Your task to perform on an android device: check the backup settings in the google photos Image 0: 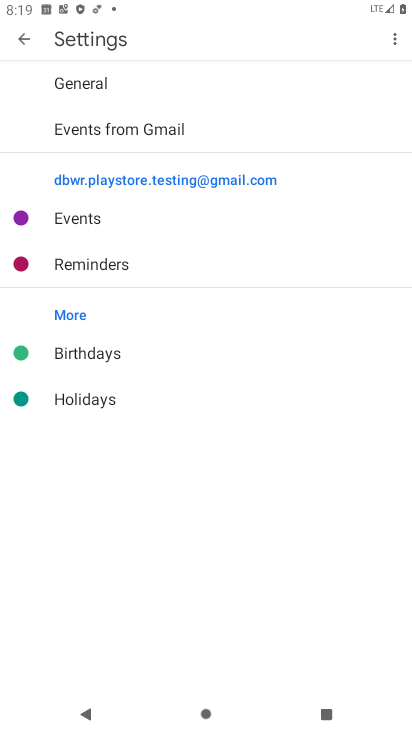
Step 0: press home button
Your task to perform on an android device: check the backup settings in the google photos Image 1: 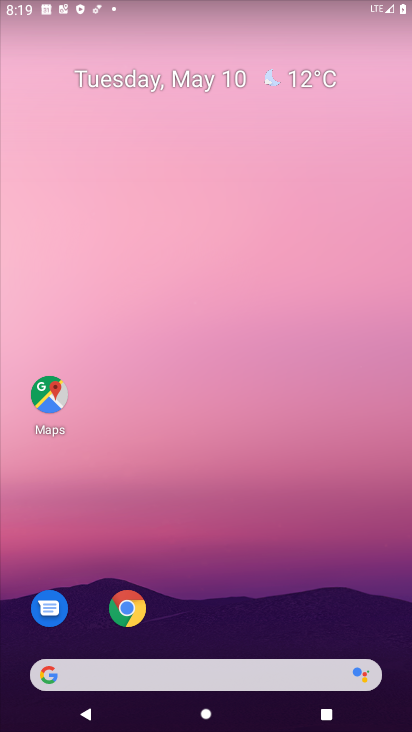
Step 1: drag from (130, 674) to (305, 102)
Your task to perform on an android device: check the backup settings in the google photos Image 2: 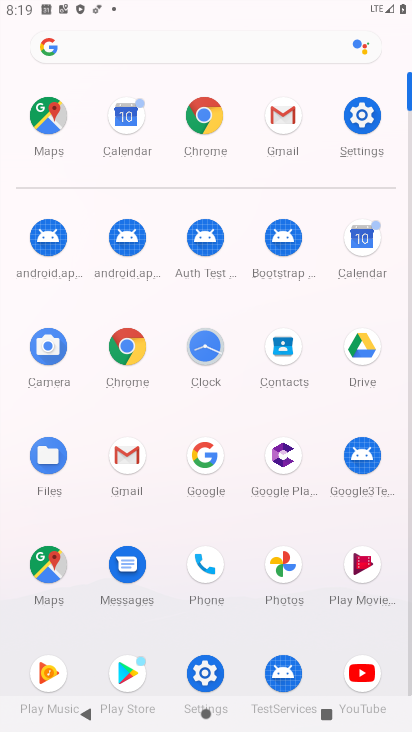
Step 2: click (281, 567)
Your task to perform on an android device: check the backup settings in the google photos Image 3: 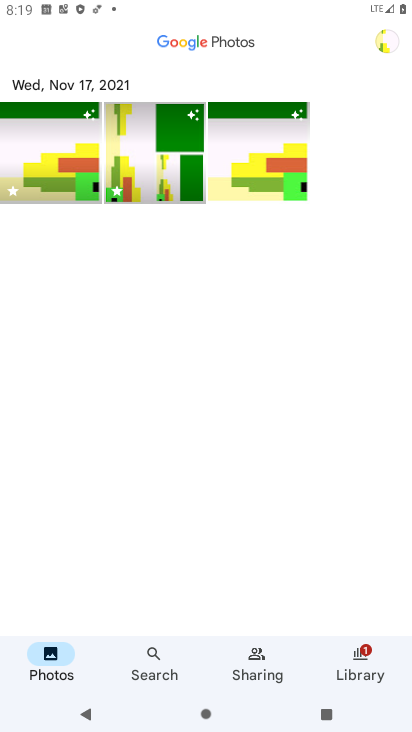
Step 3: click (387, 40)
Your task to perform on an android device: check the backup settings in the google photos Image 4: 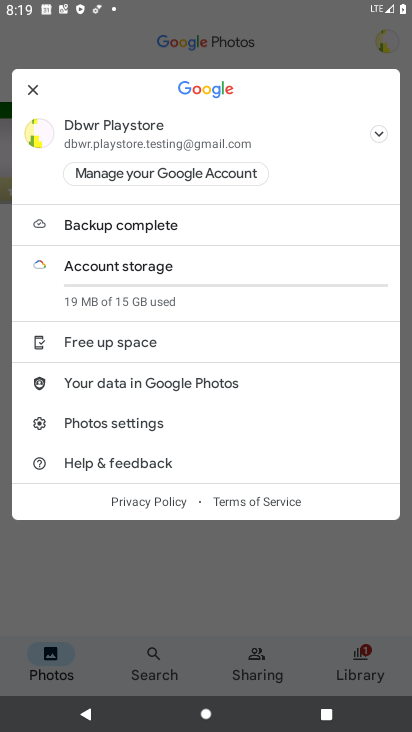
Step 4: click (168, 230)
Your task to perform on an android device: check the backup settings in the google photos Image 5: 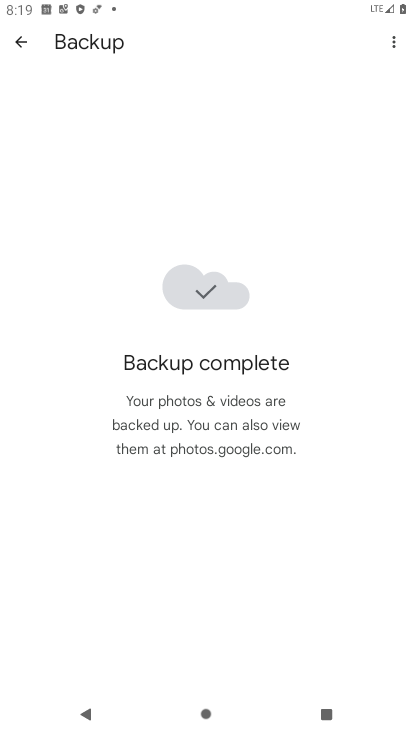
Step 5: click (17, 41)
Your task to perform on an android device: check the backup settings in the google photos Image 6: 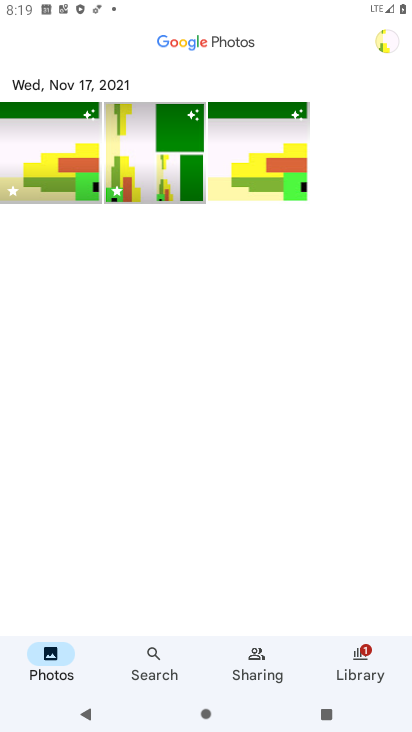
Step 6: click (387, 40)
Your task to perform on an android device: check the backup settings in the google photos Image 7: 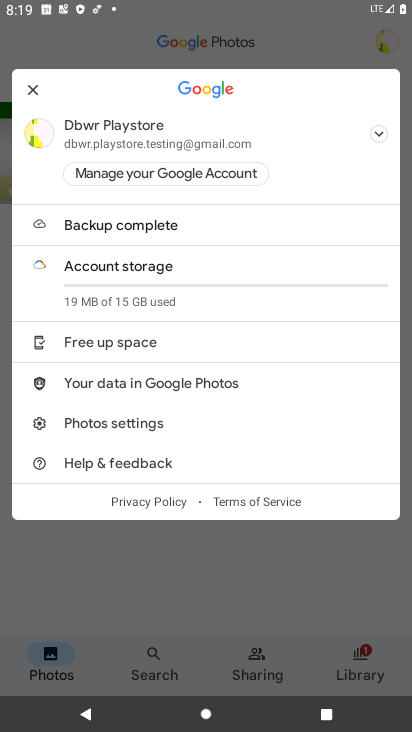
Step 7: click (99, 425)
Your task to perform on an android device: check the backup settings in the google photos Image 8: 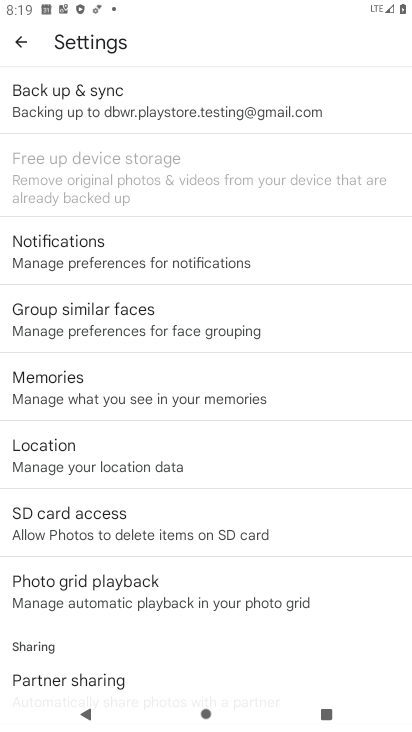
Step 8: click (217, 117)
Your task to perform on an android device: check the backup settings in the google photos Image 9: 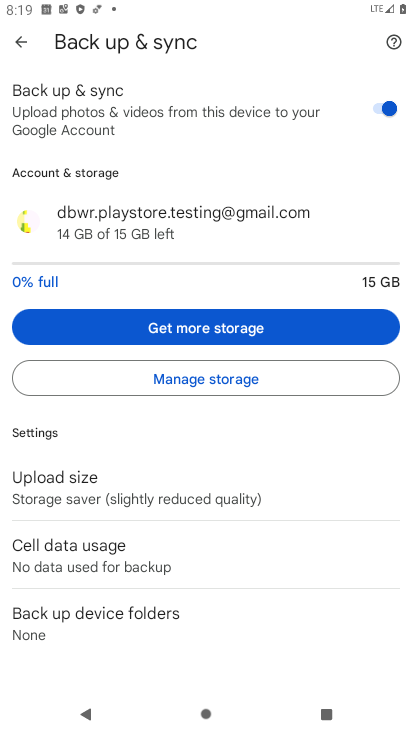
Step 9: task complete